Your task to perform on an android device: Go to display settings Image 0: 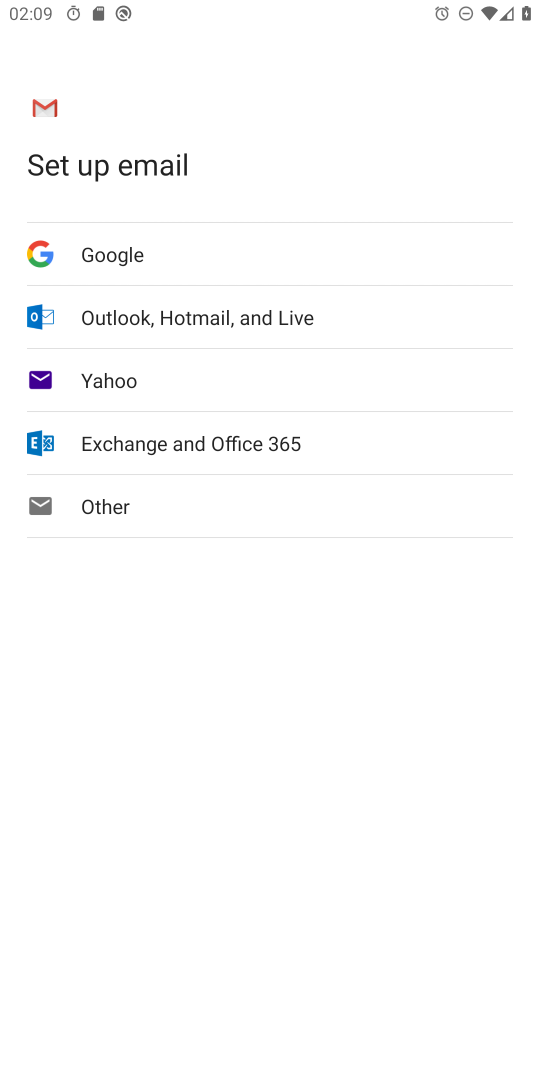
Step 0: press home button
Your task to perform on an android device: Go to display settings Image 1: 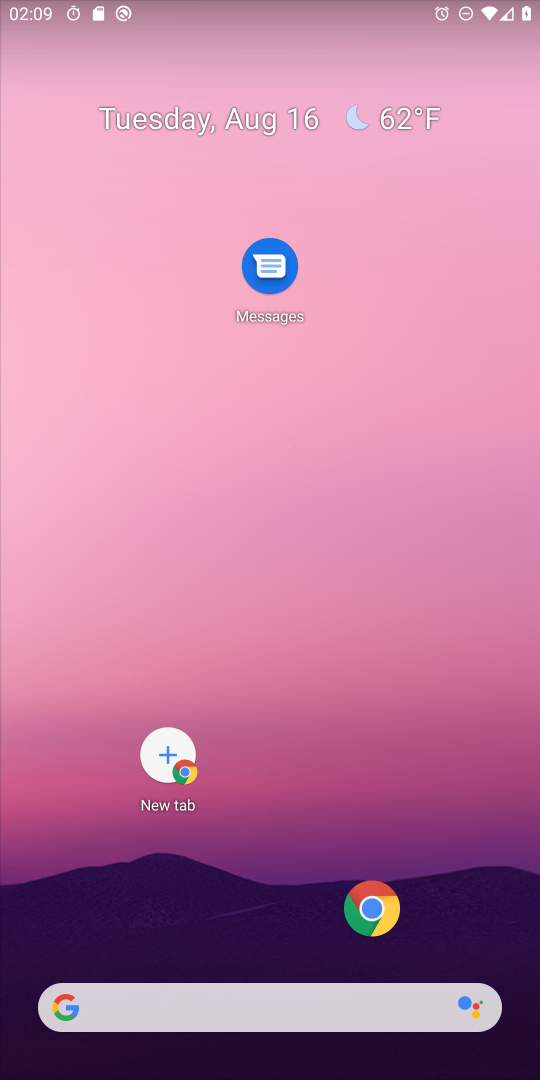
Step 1: drag from (267, 927) to (352, 60)
Your task to perform on an android device: Go to display settings Image 2: 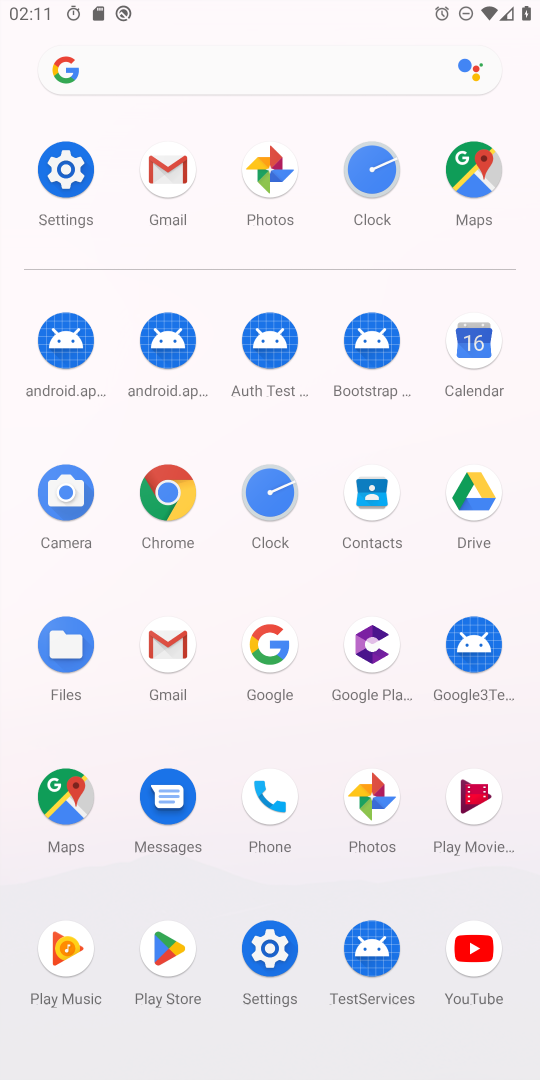
Step 2: click (63, 186)
Your task to perform on an android device: Go to display settings Image 3: 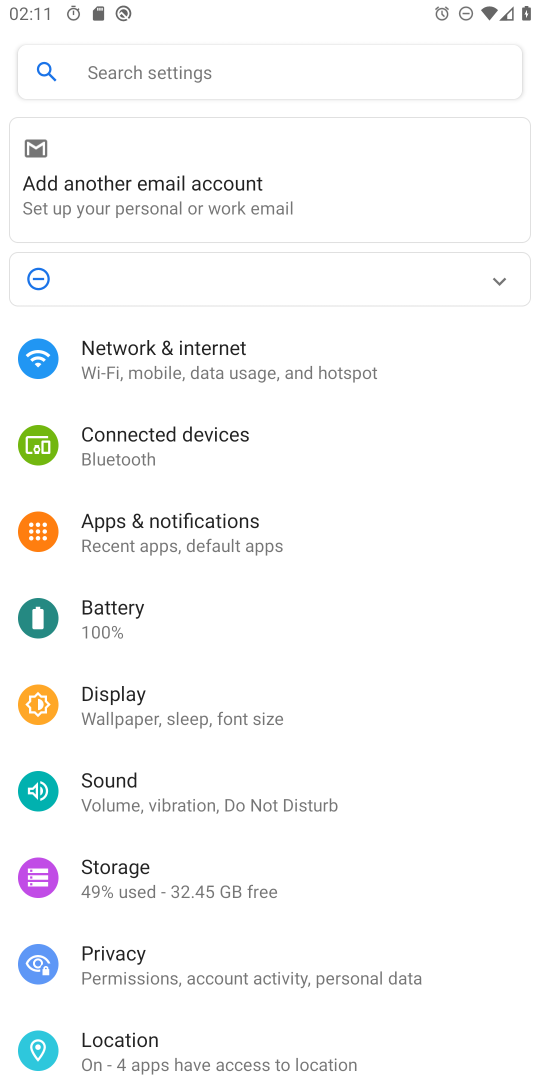
Step 3: click (94, 694)
Your task to perform on an android device: Go to display settings Image 4: 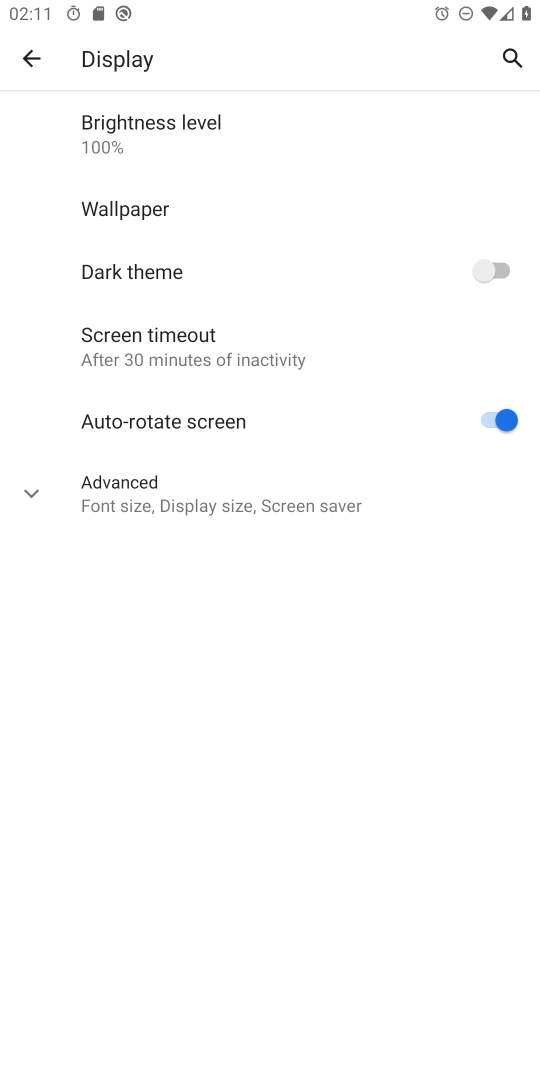
Step 4: task complete